Your task to perform on an android device: Open settings on Google Maps Image 0: 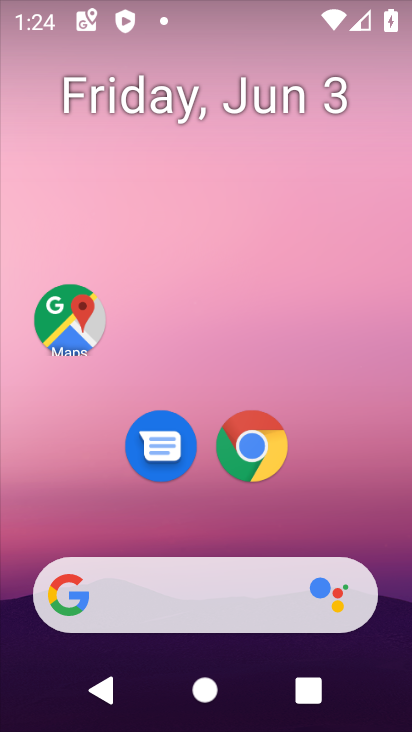
Step 0: click (65, 300)
Your task to perform on an android device: Open settings on Google Maps Image 1: 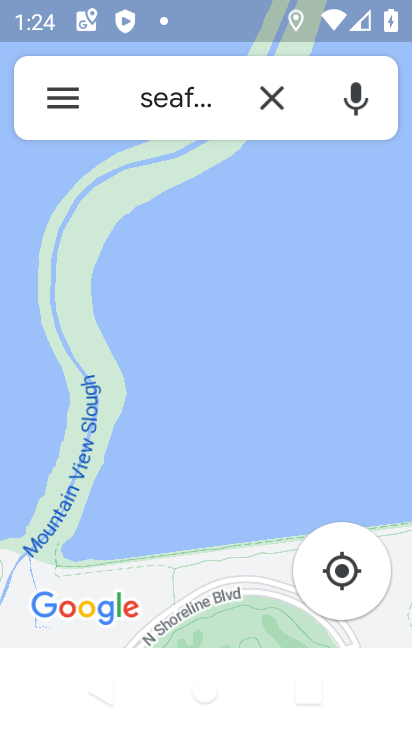
Step 1: click (66, 101)
Your task to perform on an android device: Open settings on Google Maps Image 2: 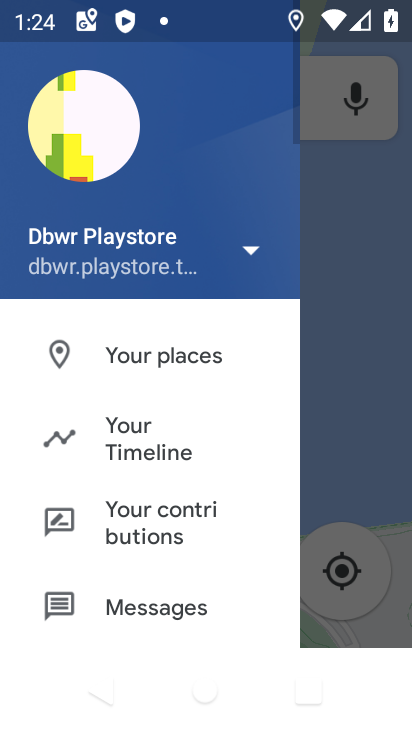
Step 2: drag from (125, 581) to (184, 20)
Your task to perform on an android device: Open settings on Google Maps Image 3: 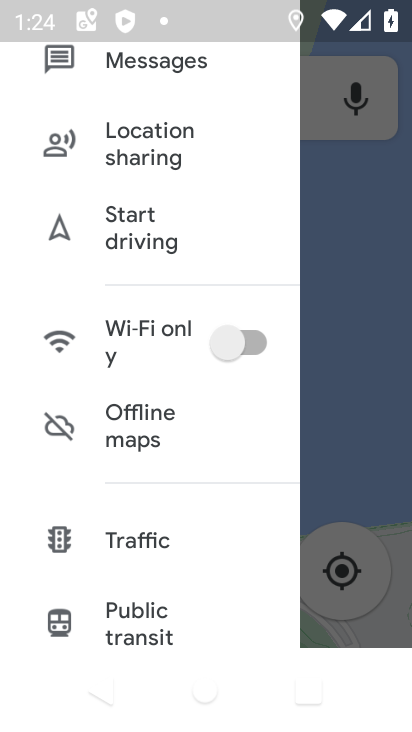
Step 3: drag from (137, 599) to (67, 9)
Your task to perform on an android device: Open settings on Google Maps Image 4: 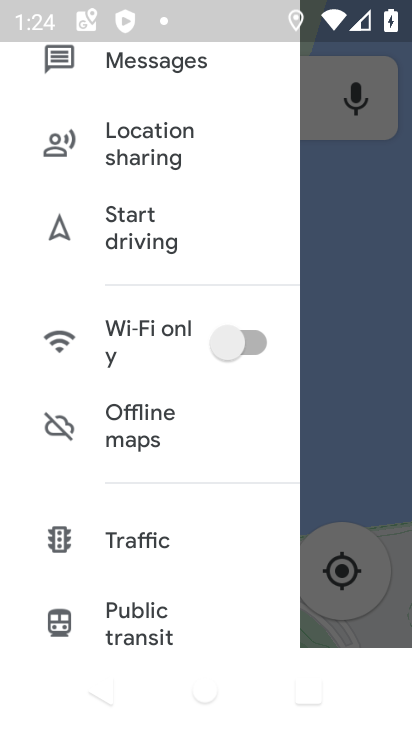
Step 4: drag from (123, 606) to (224, 45)
Your task to perform on an android device: Open settings on Google Maps Image 5: 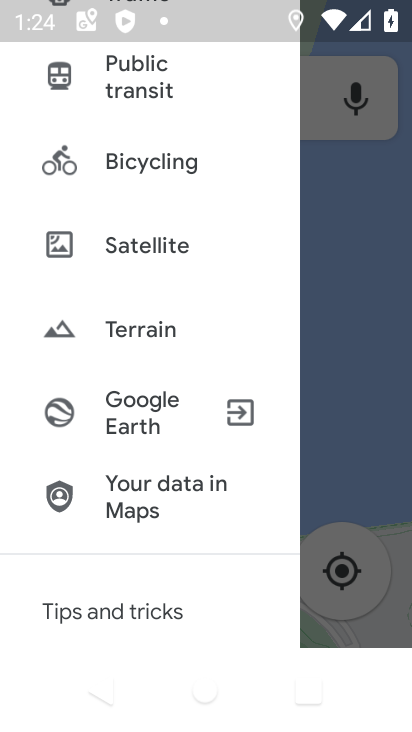
Step 5: drag from (142, 568) to (102, 6)
Your task to perform on an android device: Open settings on Google Maps Image 6: 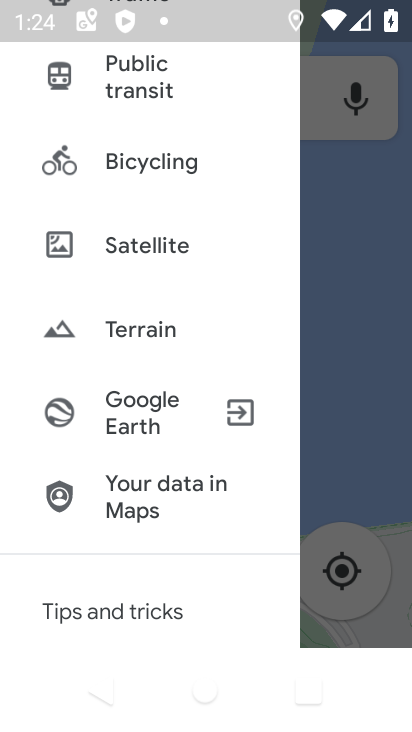
Step 6: drag from (131, 600) to (96, 0)
Your task to perform on an android device: Open settings on Google Maps Image 7: 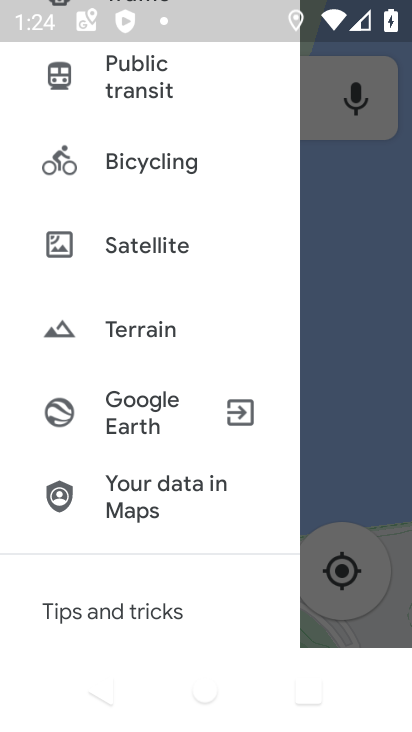
Step 7: drag from (100, 622) to (109, 59)
Your task to perform on an android device: Open settings on Google Maps Image 8: 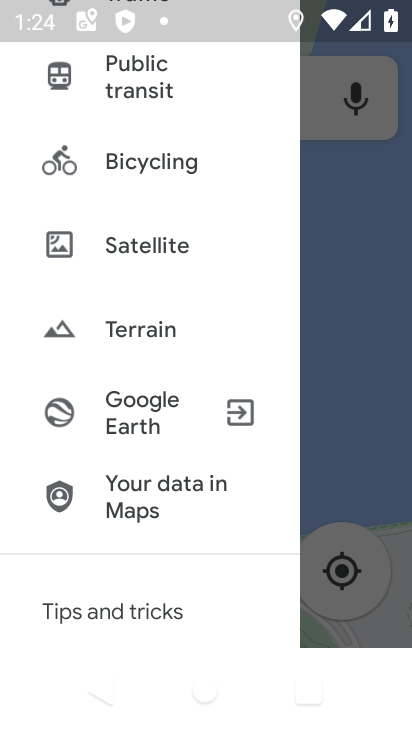
Step 8: drag from (161, 583) to (168, 19)
Your task to perform on an android device: Open settings on Google Maps Image 9: 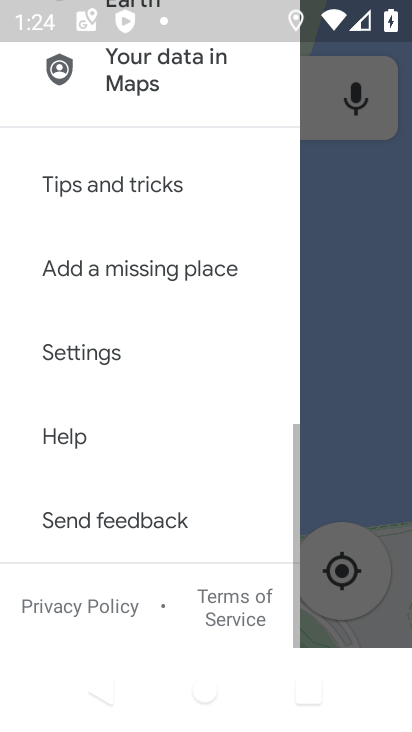
Step 9: click (161, 353)
Your task to perform on an android device: Open settings on Google Maps Image 10: 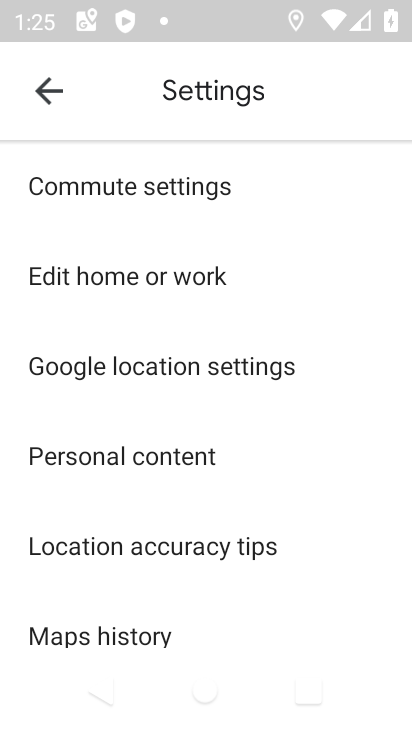
Step 10: task complete